Your task to perform on an android device: Toggle the flashlight Image 0: 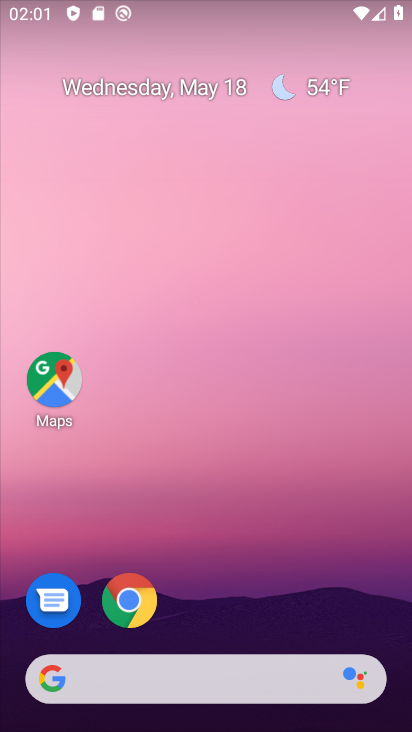
Step 0: drag from (195, 8) to (312, 569)
Your task to perform on an android device: Toggle the flashlight Image 1: 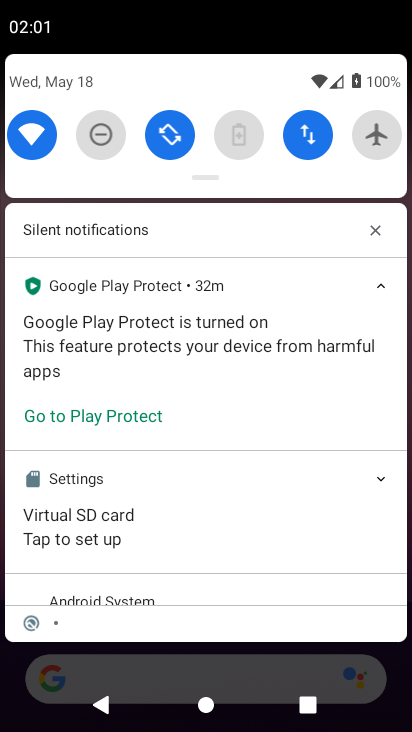
Step 1: drag from (178, 150) to (246, 530)
Your task to perform on an android device: Toggle the flashlight Image 2: 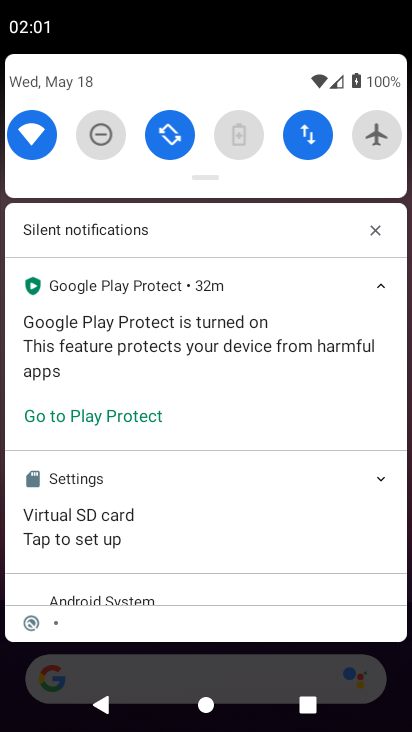
Step 2: drag from (296, 107) to (307, 563)
Your task to perform on an android device: Toggle the flashlight Image 3: 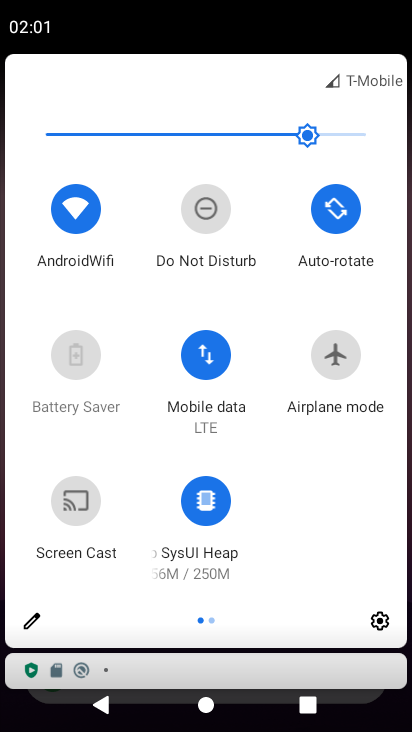
Step 3: drag from (337, 440) to (8, 511)
Your task to perform on an android device: Toggle the flashlight Image 4: 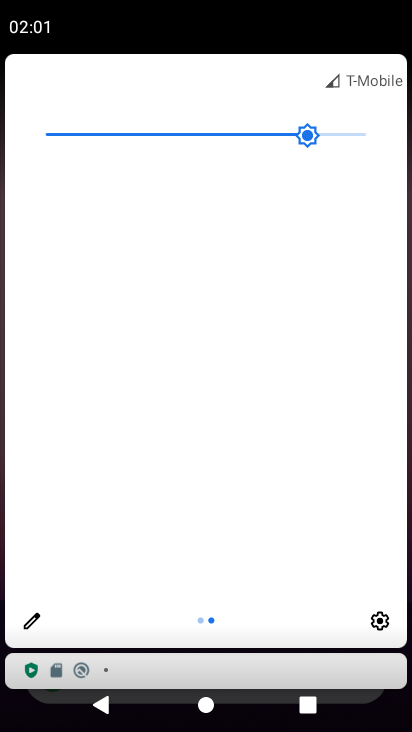
Step 4: click (28, 624)
Your task to perform on an android device: Toggle the flashlight Image 5: 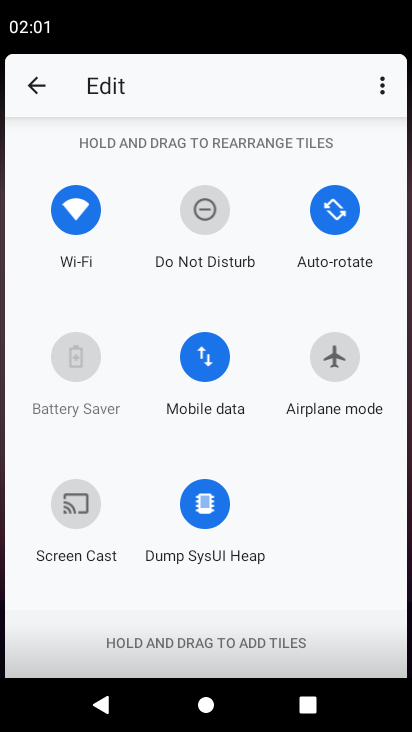
Step 5: task complete